Your task to perform on an android device: turn pop-ups on in chrome Image 0: 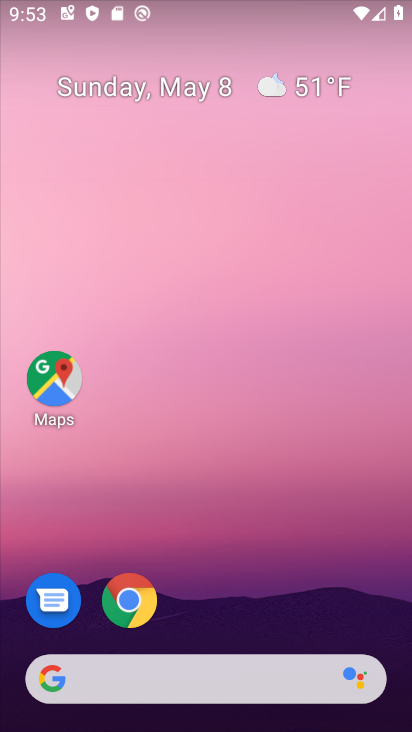
Step 0: drag from (281, 581) to (208, 5)
Your task to perform on an android device: turn pop-ups on in chrome Image 1: 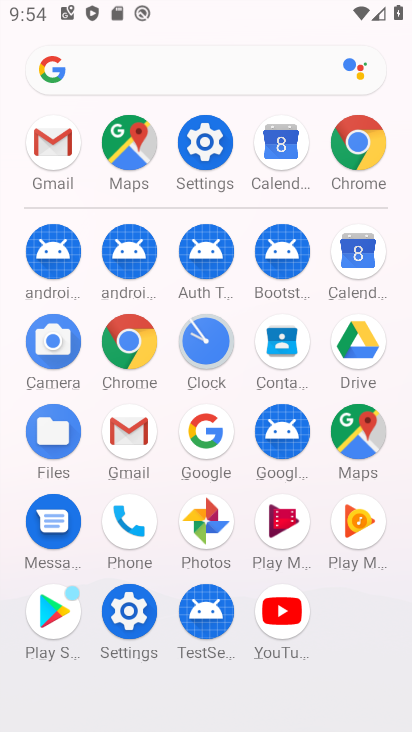
Step 1: click (128, 337)
Your task to perform on an android device: turn pop-ups on in chrome Image 2: 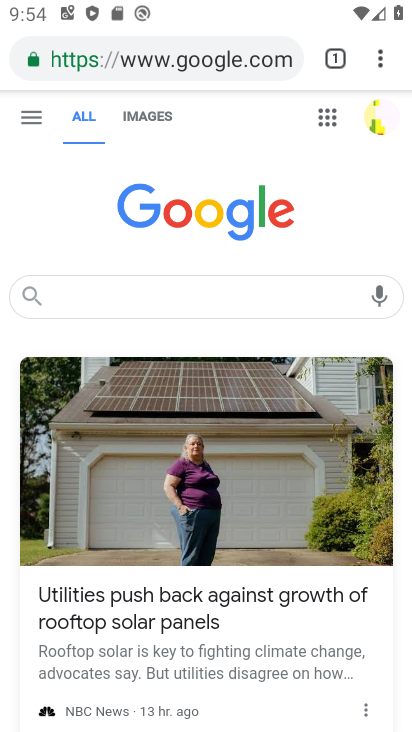
Step 2: drag from (383, 63) to (180, 629)
Your task to perform on an android device: turn pop-ups on in chrome Image 3: 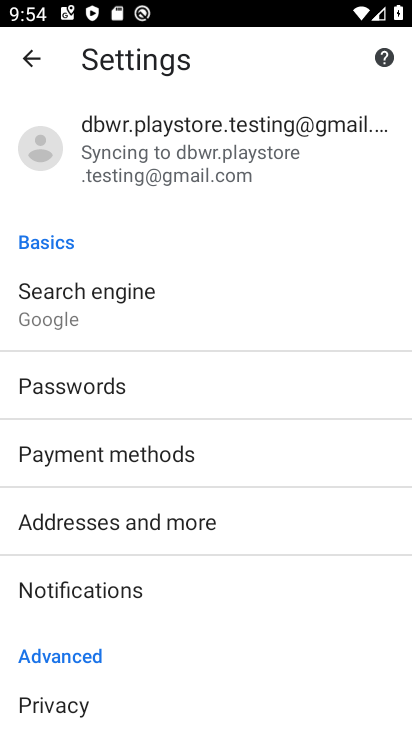
Step 3: drag from (262, 642) to (289, 222)
Your task to perform on an android device: turn pop-ups on in chrome Image 4: 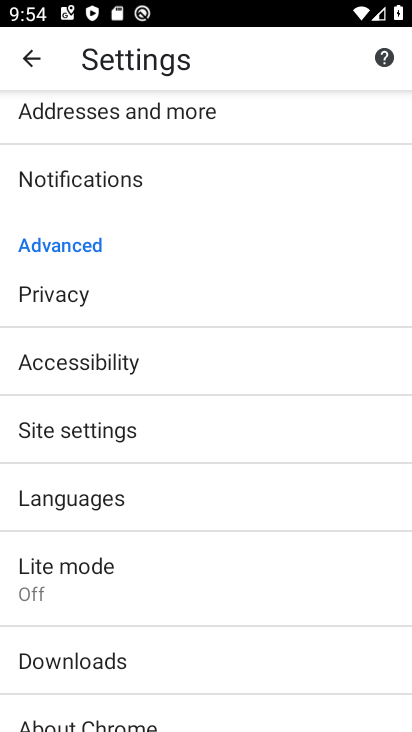
Step 4: click (151, 425)
Your task to perform on an android device: turn pop-ups on in chrome Image 5: 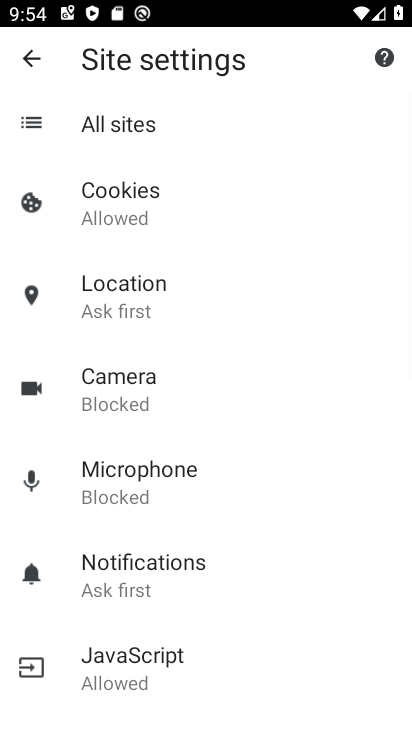
Step 5: drag from (271, 609) to (281, 170)
Your task to perform on an android device: turn pop-ups on in chrome Image 6: 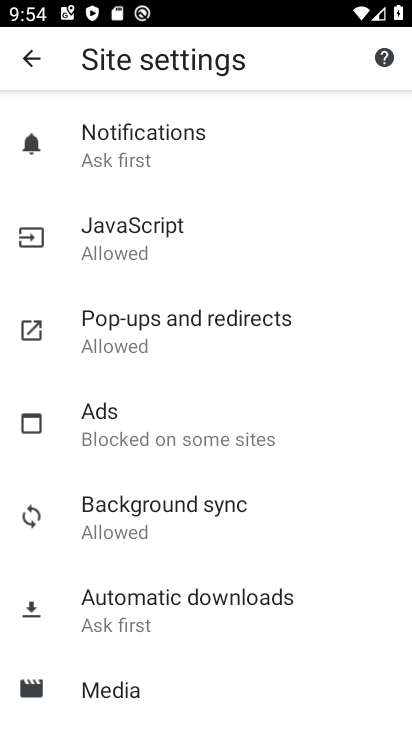
Step 6: click (224, 330)
Your task to perform on an android device: turn pop-ups on in chrome Image 7: 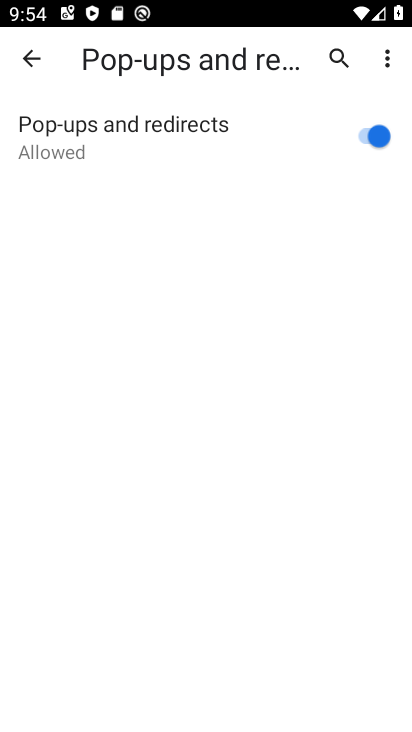
Step 7: task complete